Your task to perform on an android device: turn off location Image 0: 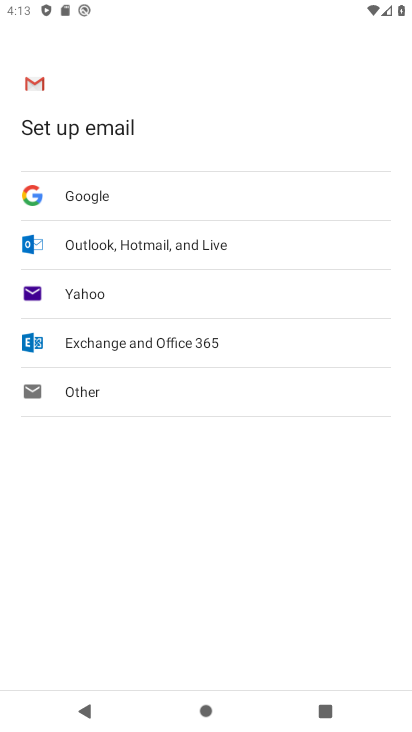
Step 0: press home button
Your task to perform on an android device: turn off location Image 1: 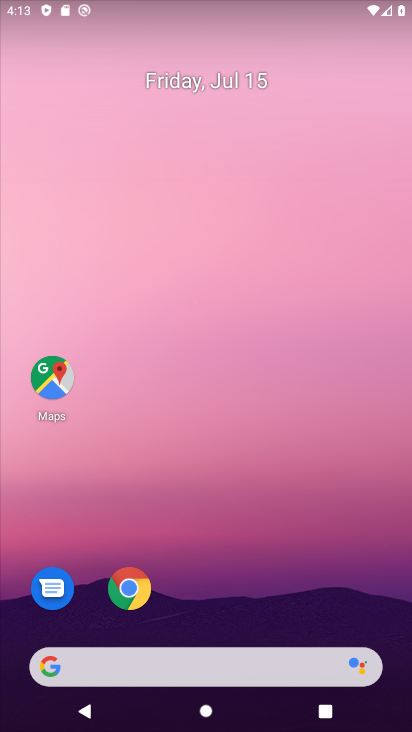
Step 1: drag from (210, 336) to (304, 20)
Your task to perform on an android device: turn off location Image 2: 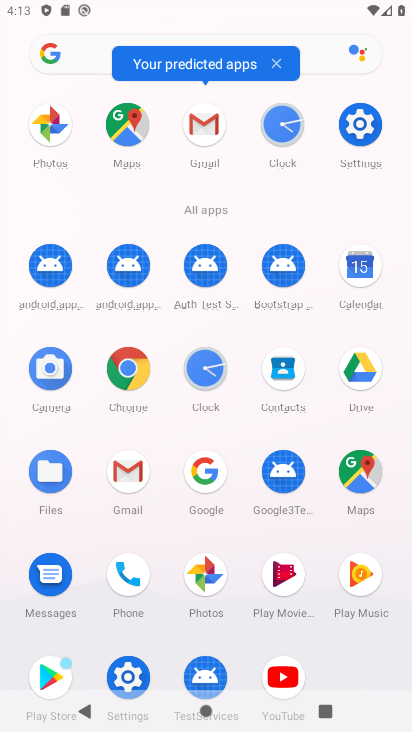
Step 2: click (128, 659)
Your task to perform on an android device: turn off location Image 3: 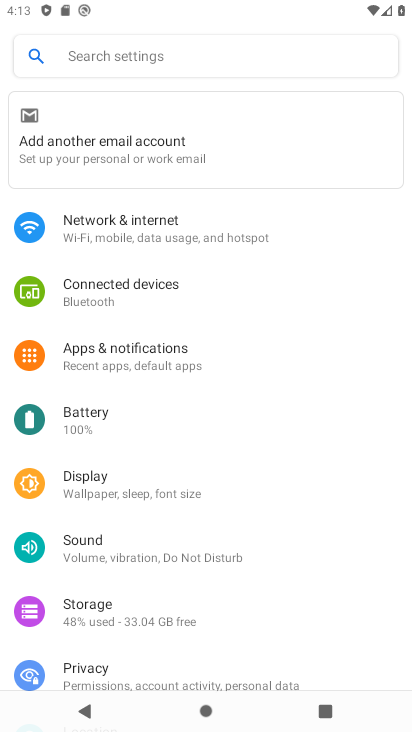
Step 3: drag from (370, 570) to (358, 384)
Your task to perform on an android device: turn off location Image 4: 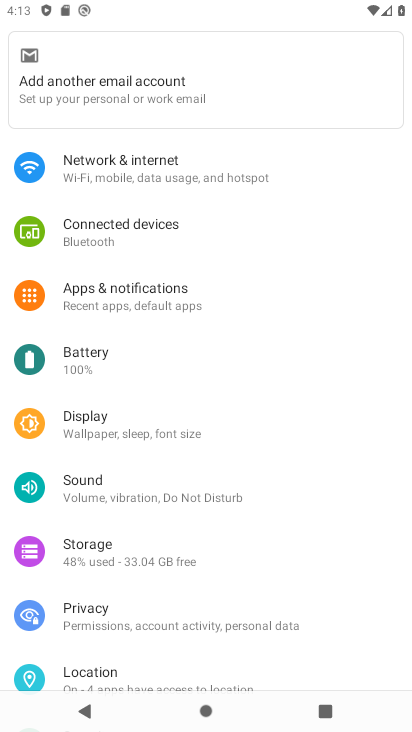
Step 4: click (131, 675)
Your task to perform on an android device: turn off location Image 5: 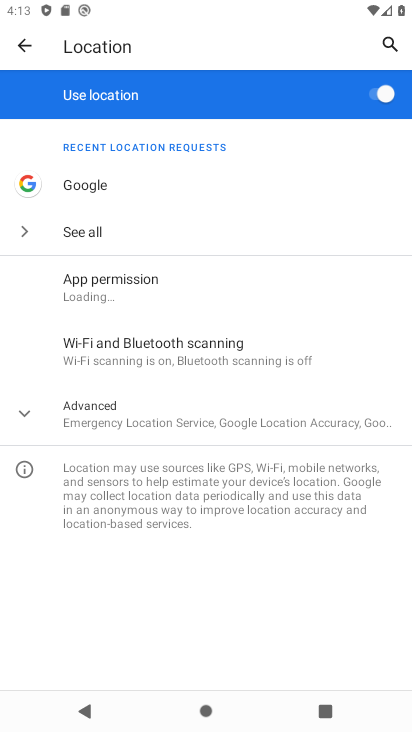
Step 5: click (95, 674)
Your task to perform on an android device: turn off location Image 6: 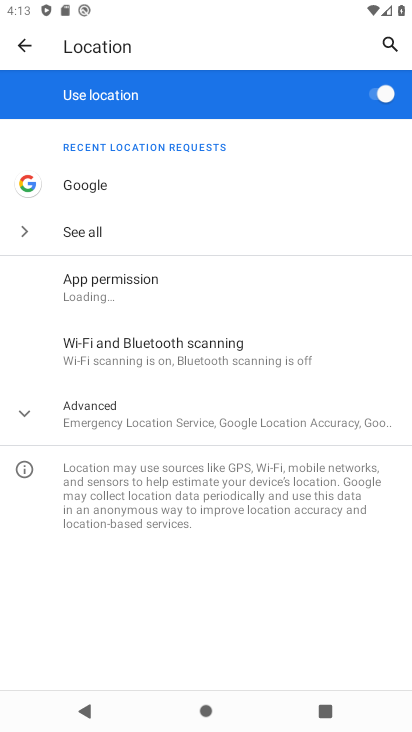
Step 6: click (384, 91)
Your task to perform on an android device: turn off location Image 7: 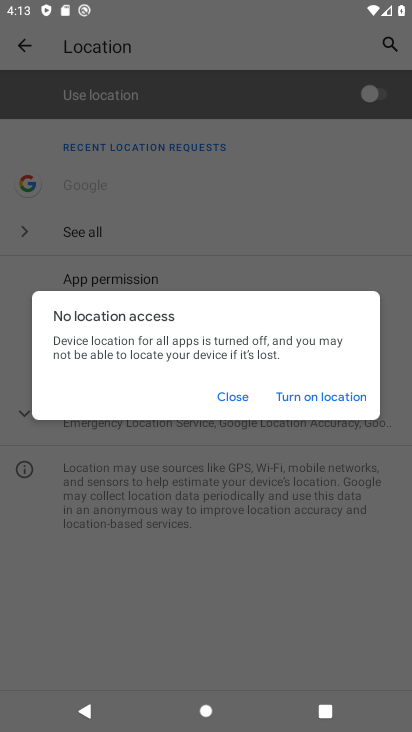
Step 7: task complete